Your task to perform on an android device: Open Youtube and go to "Your channel" Image 0: 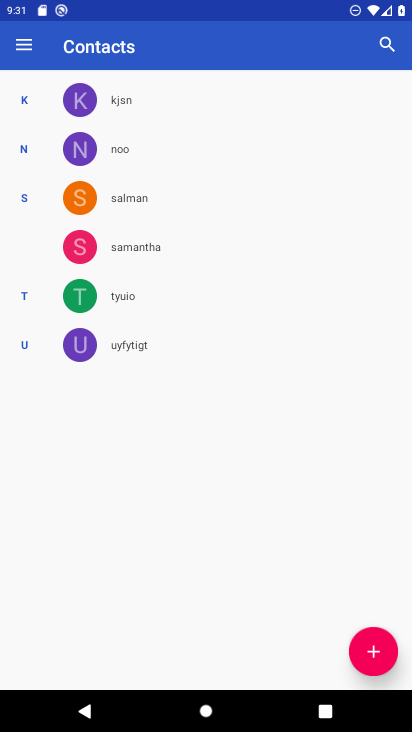
Step 0: click (262, 588)
Your task to perform on an android device: Open Youtube and go to "Your channel" Image 1: 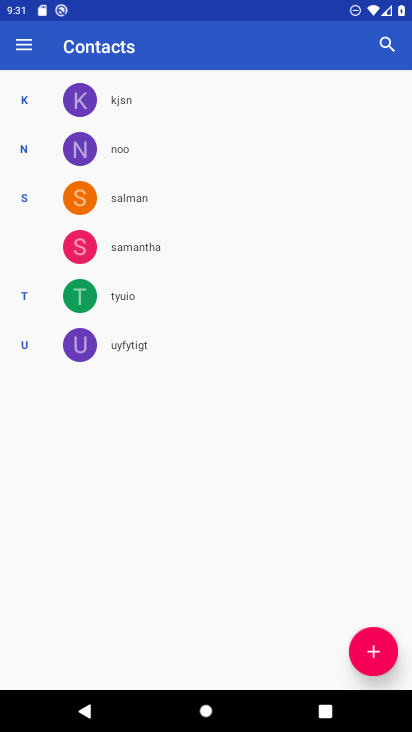
Step 1: press home button
Your task to perform on an android device: Open Youtube and go to "Your channel" Image 2: 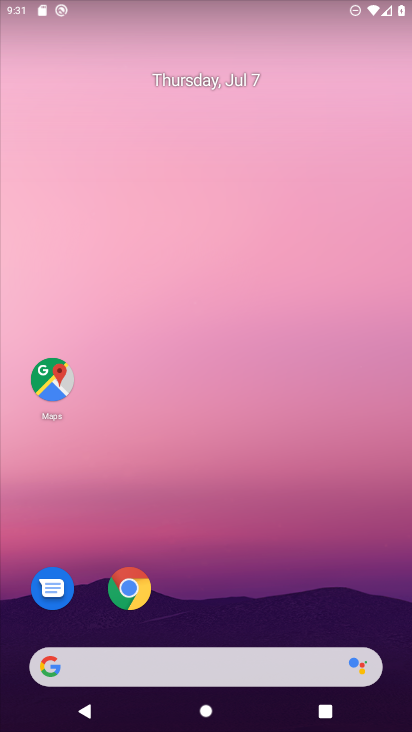
Step 2: drag from (209, 620) to (265, 91)
Your task to perform on an android device: Open Youtube and go to "Your channel" Image 3: 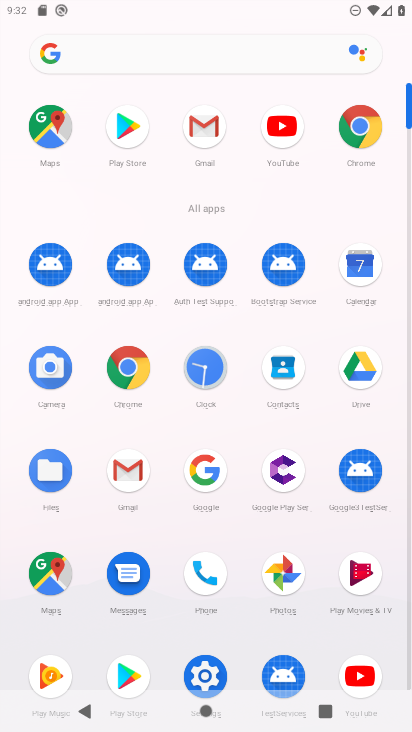
Step 3: click (350, 672)
Your task to perform on an android device: Open Youtube and go to "Your channel" Image 4: 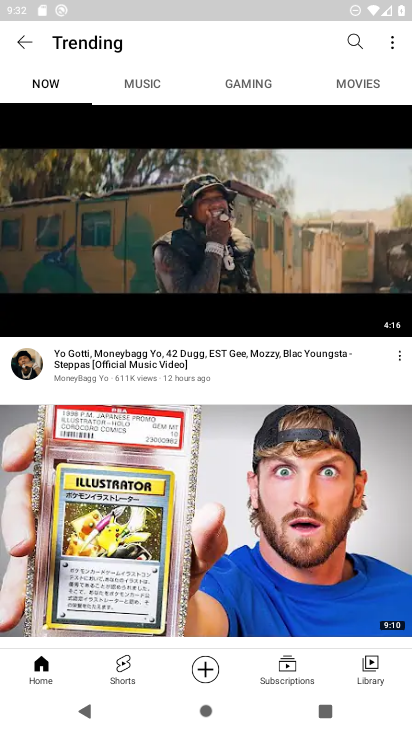
Step 4: click (13, 36)
Your task to perform on an android device: Open Youtube and go to "Your channel" Image 5: 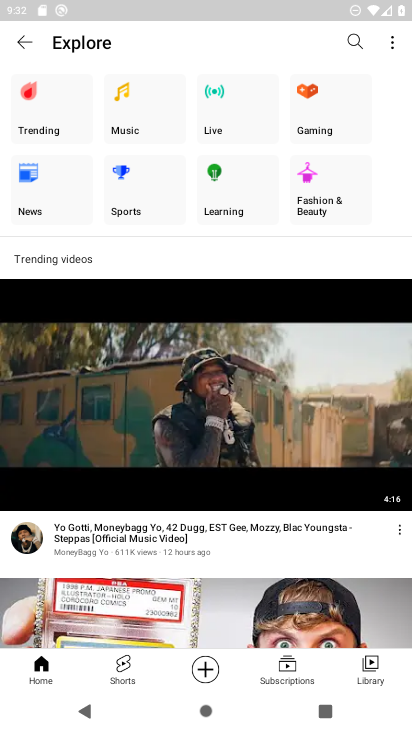
Step 5: click (359, 36)
Your task to perform on an android device: Open Youtube and go to "Your channel" Image 6: 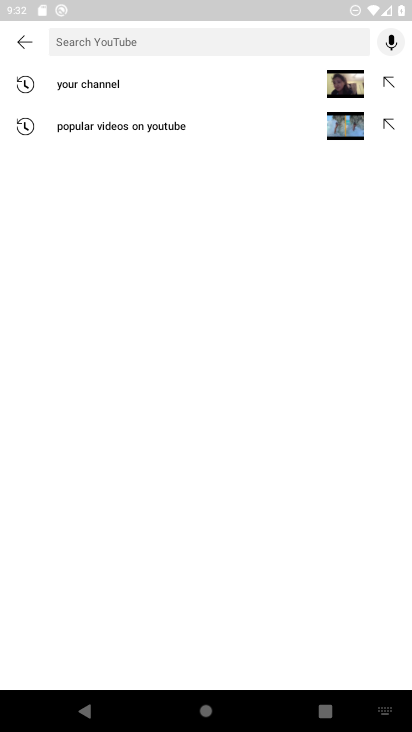
Step 6: click (264, 90)
Your task to perform on an android device: Open Youtube and go to "Your channel" Image 7: 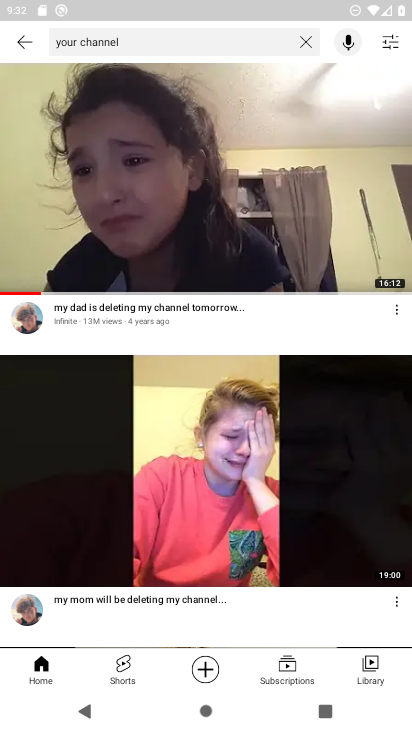
Step 7: task complete